Your task to perform on an android device: open a bookmark in the chrome app Image 0: 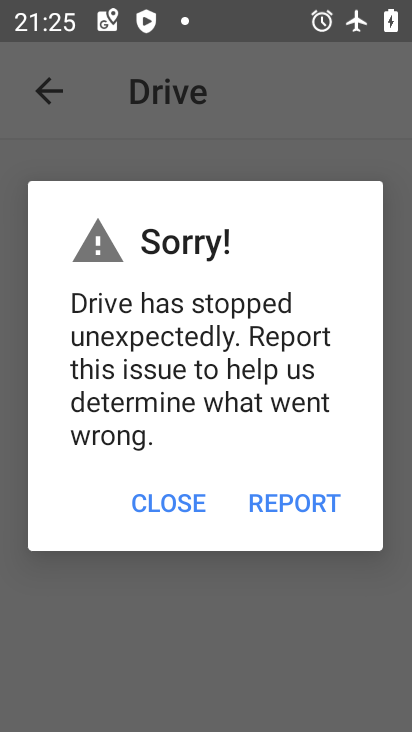
Step 0: press home button
Your task to perform on an android device: open a bookmark in the chrome app Image 1: 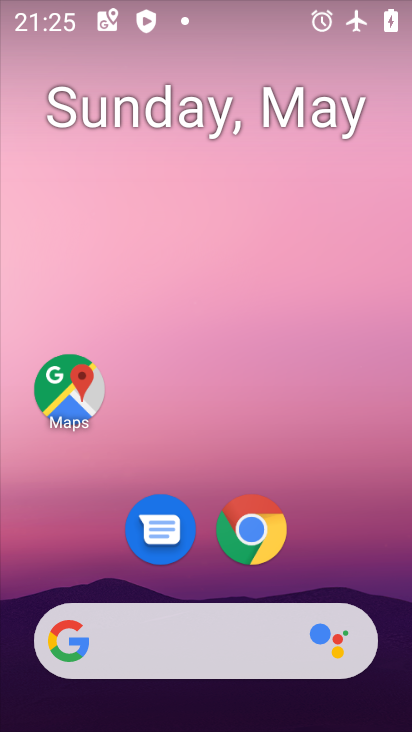
Step 1: click (258, 538)
Your task to perform on an android device: open a bookmark in the chrome app Image 2: 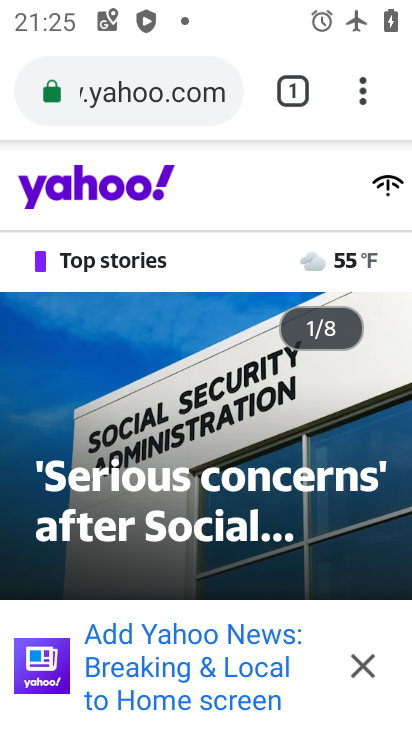
Step 2: click (363, 94)
Your task to perform on an android device: open a bookmark in the chrome app Image 3: 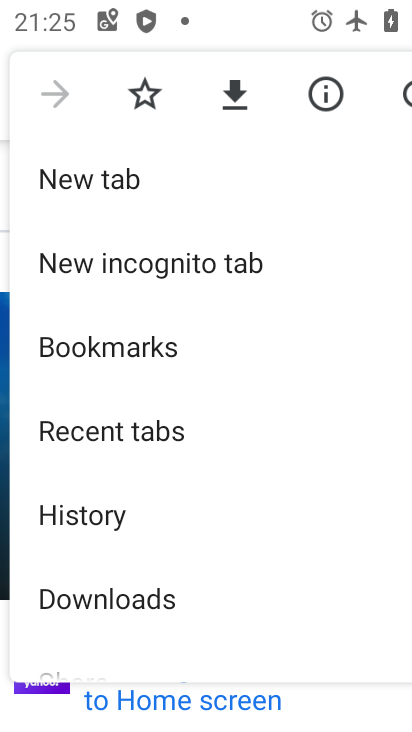
Step 3: click (129, 355)
Your task to perform on an android device: open a bookmark in the chrome app Image 4: 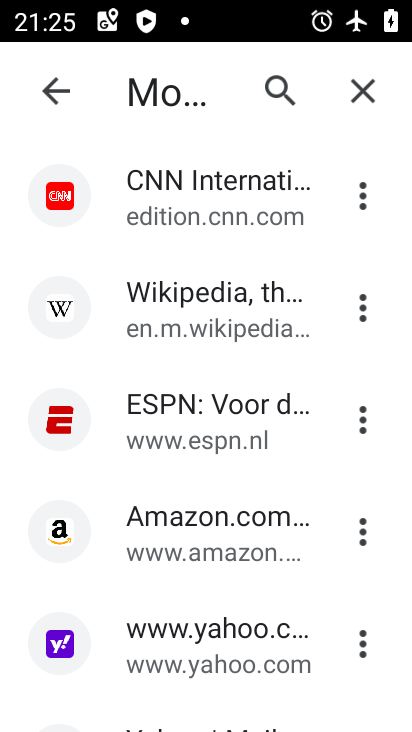
Step 4: click (178, 216)
Your task to perform on an android device: open a bookmark in the chrome app Image 5: 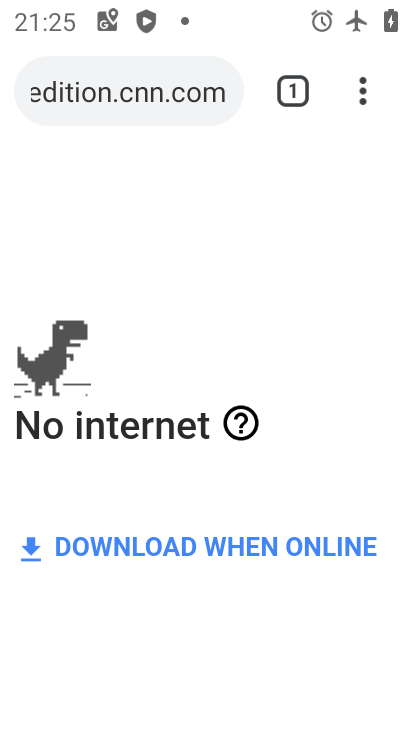
Step 5: task complete